Your task to perform on an android device: see tabs open on other devices in the chrome app Image 0: 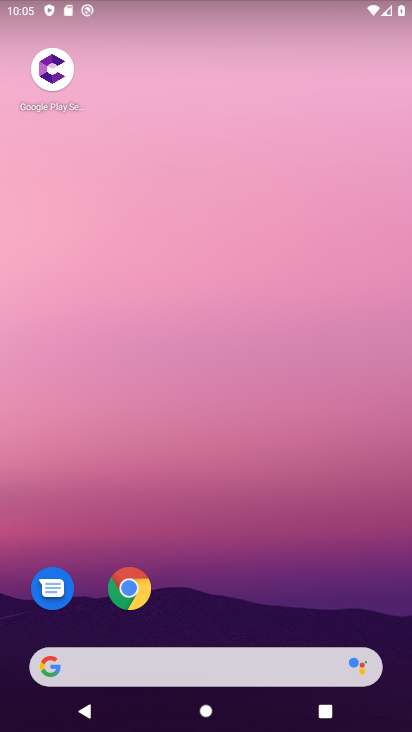
Step 0: drag from (190, 542) to (0, 285)
Your task to perform on an android device: see tabs open on other devices in the chrome app Image 1: 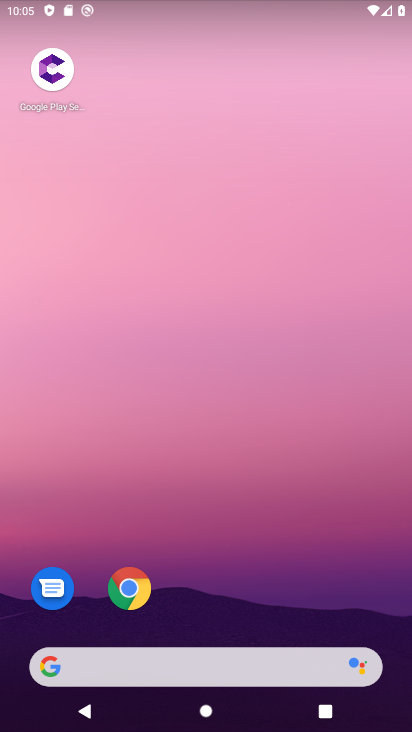
Step 1: drag from (283, 533) to (22, 62)
Your task to perform on an android device: see tabs open on other devices in the chrome app Image 2: 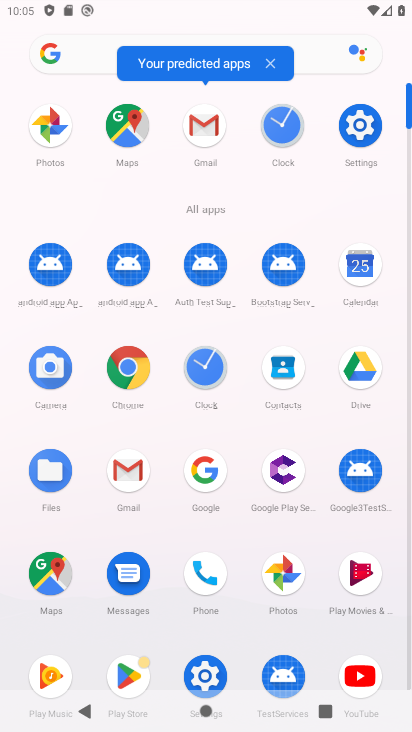
Step 2: click (113, 368)
Your task to perform on an android device: see tabs open on other devices in the chrome app Image 3: 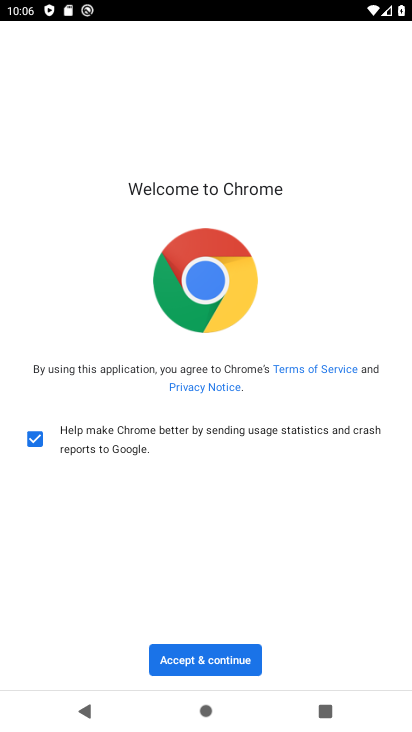
Step 3: click (213, 669)
Your task to perform on an android device: see tabs open on other devices in the chrome app Image 4: 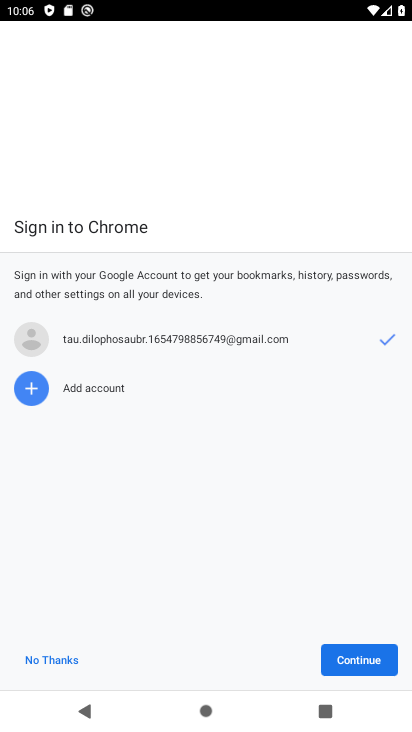
Step 4: click (371, 654)
Your task to perform on an android device: see tabs open on other devices in the chrome app Image 5: 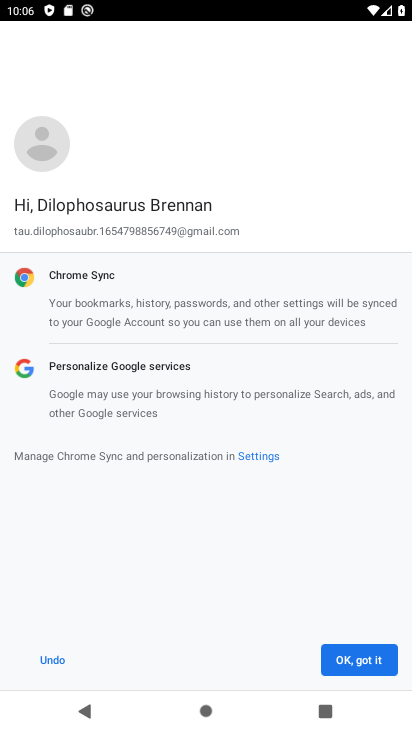
Step 5: click (360, 656)
Your task to perform on an android device: see tabs open on other devices in the chrome app Image 6: 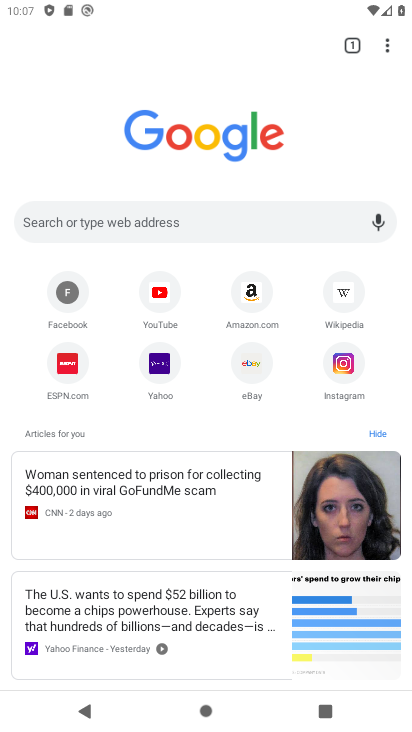
Step 6: click (352, 42)
Your task to perform on an android device: see tabs open on other devices in the chrome app Image 7: 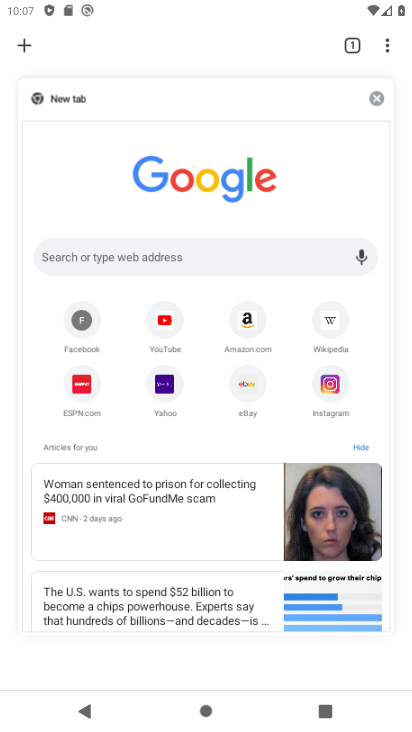
Step 7: click (105, 161)
Your task to perform on an android device: see tabs open on other devices in the chrome app Image 8: 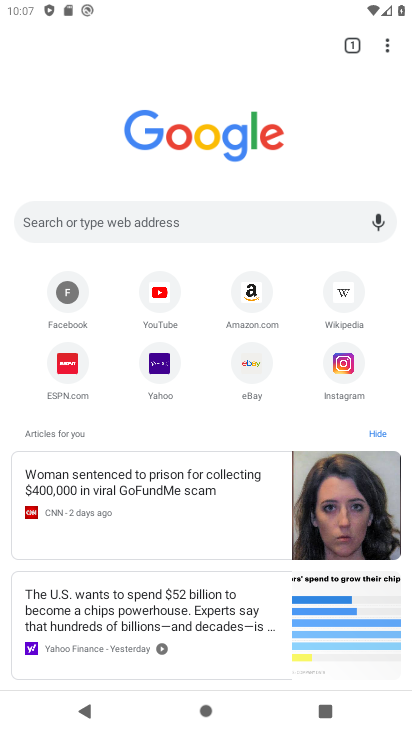
Step 8: click (391, 49)
Your task to perform on an android device: see tabs open on other devices in the chrome app Image 9: 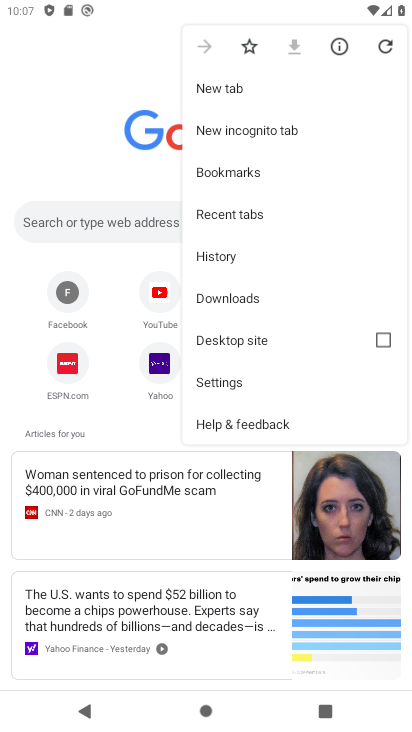
Step 9: click (254, 385)
Your task to perform on an android device: see tabs open on other devices in the chrome app Image 10: 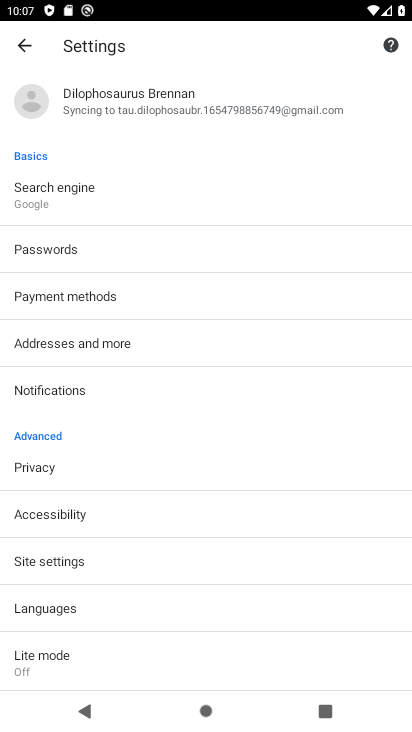
Step 10: press back button
Your task to perform on an android device: see tabs open on other devices in the chrome app Image 11: 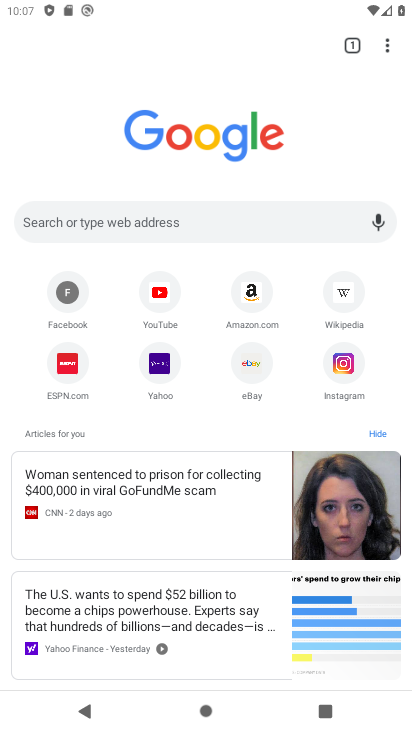
Step 11: click (388, 52)
Your task to perform on an android device: see tabs open on other devices in the chrome app Image 12: 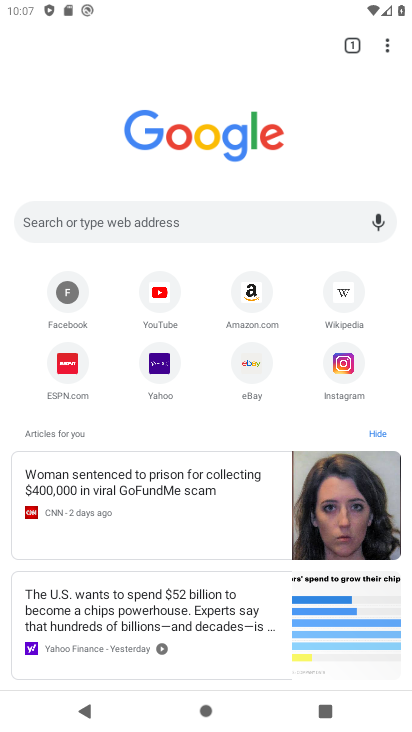
Step 12: click (384, 52)
Your task to perform on an android device: see tabs open on other devices in the chrome app Image 13: 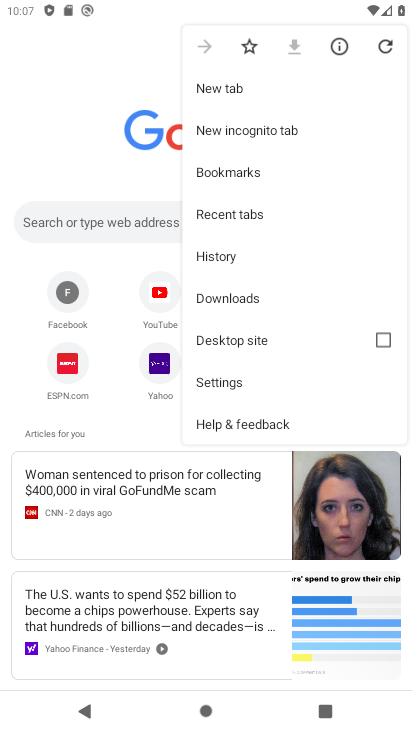
Step 13: click (244, 217)
Your task to perform on an android device: see tabs open on other devices in the chrome app Image 14: 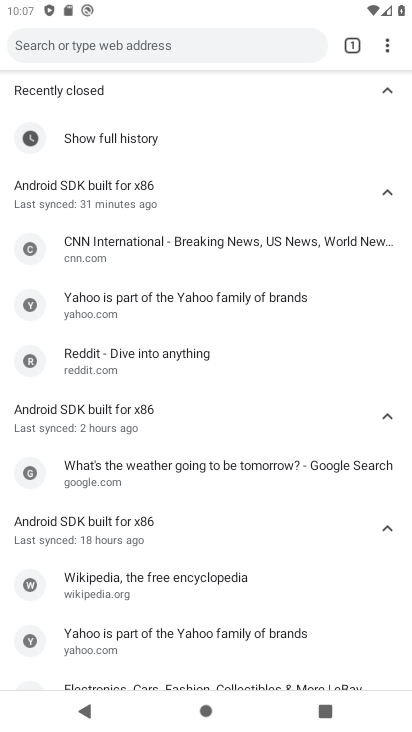
Step 14: task complete